Your task to perform on an android device: Search for "panasonic triple a" on newegg, select the first entry, add it to the cart, then select checkout. Image 0: 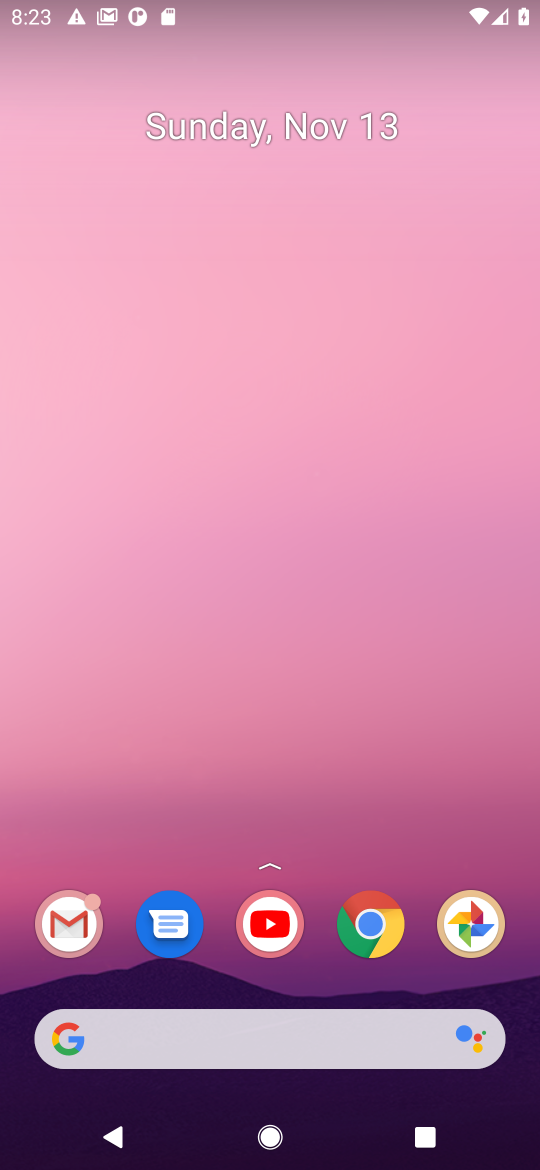
Step 0: click (380, 940)
Your task to perform on an android device: Search for "panasonic triple a" on newegg, select the first entry, add it to the cart, then select checkout. Image 1: 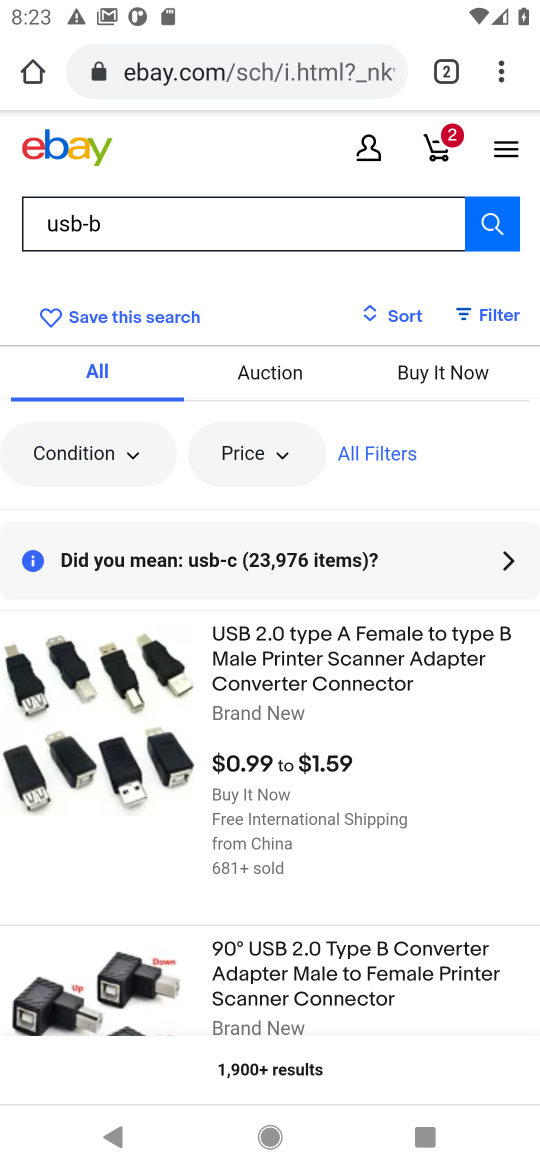
Step 1: click (243, 73)
Your task to perform on an android device: Search for "panasonic triple a" on newegg, select the first entry, add it to the cart, then select checkout. Image 2: 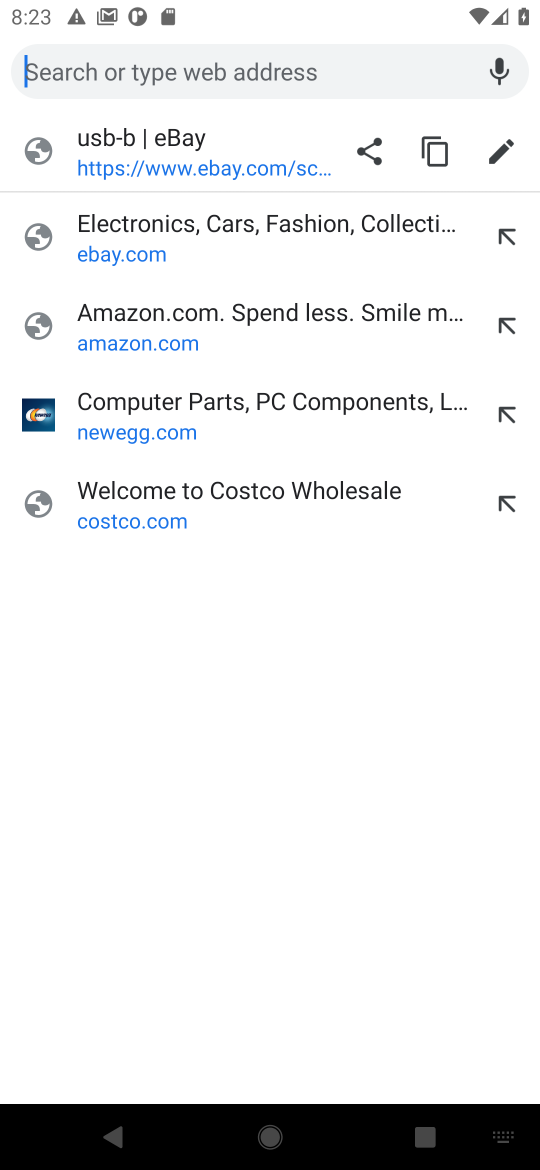
Step 2: click (101, 408)
Your task to perform on an android device: Search for "panasonic triple a" on newegg, select the first entry, add it to the cart, then select checkout. Image 3: 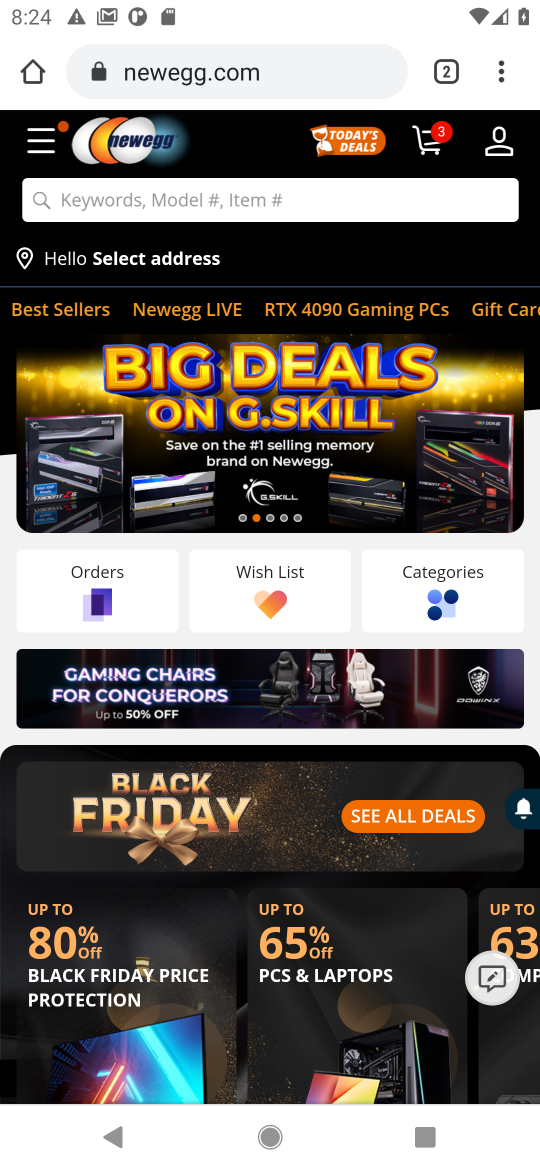
Step 3: click (168, 203)
Your task to perform on an android device: Search for "panasonic triple a" on newegg, select the first entry, add it to the cart, then select checkout. Image 4: 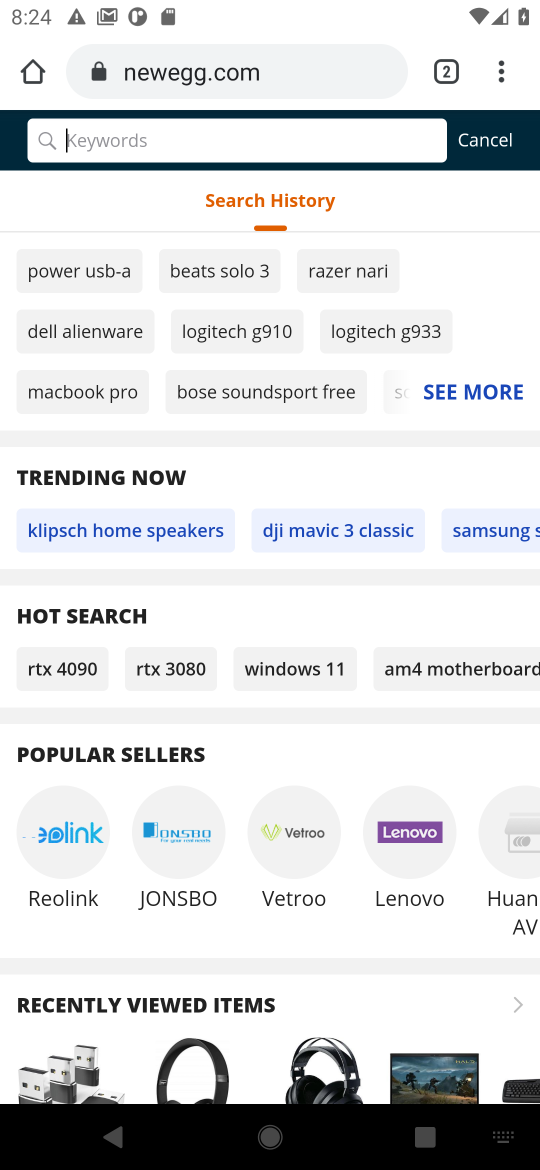
Step 4: type "panasonic triple a"
Your task to perform on an android device: Search for "panasonic triple a" on newegg, select the first entry, add it to the cart, then select checkout. Image 5: 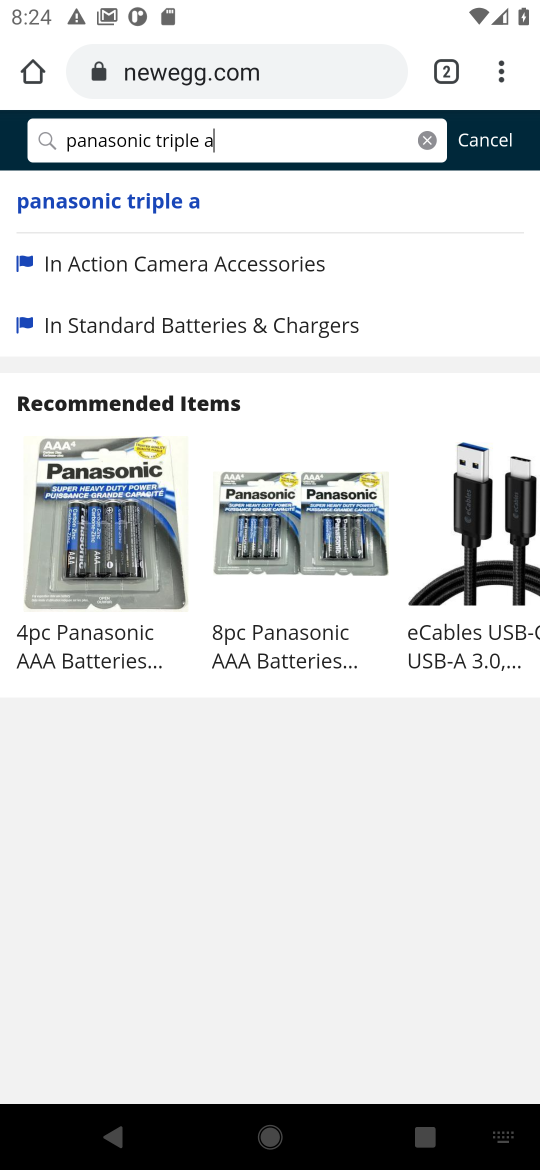
Step 5: click (151, 200)
Your task to perform on an android device: Search for "panasonic triple a" on newegg, select the first entry, add it to the cart, then select checkout. Image 6: 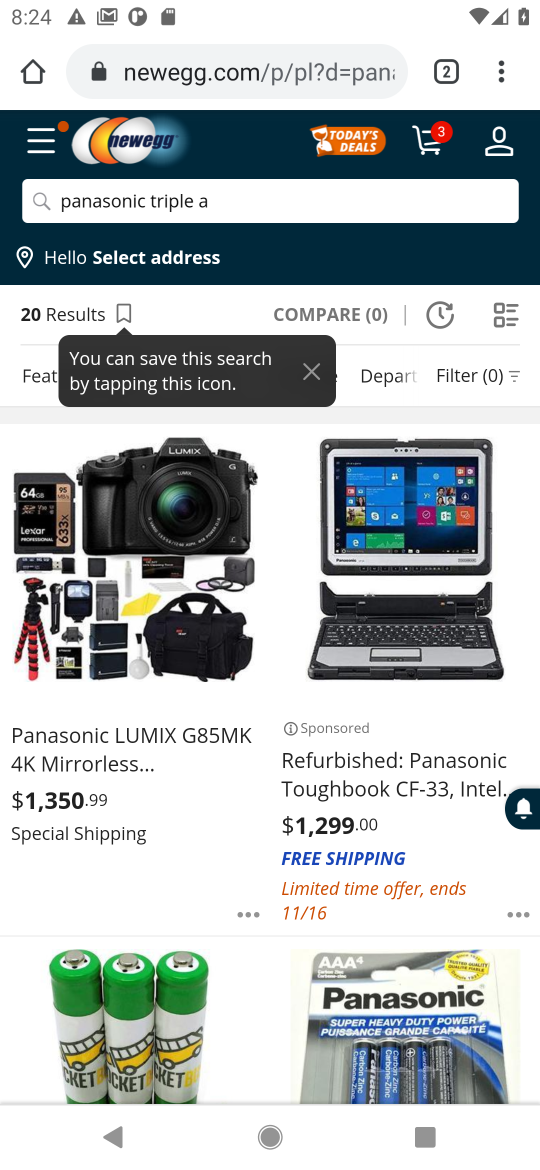
Step 6: task complete